Your task to perform on an android device: toggle sleep mode Image 0: 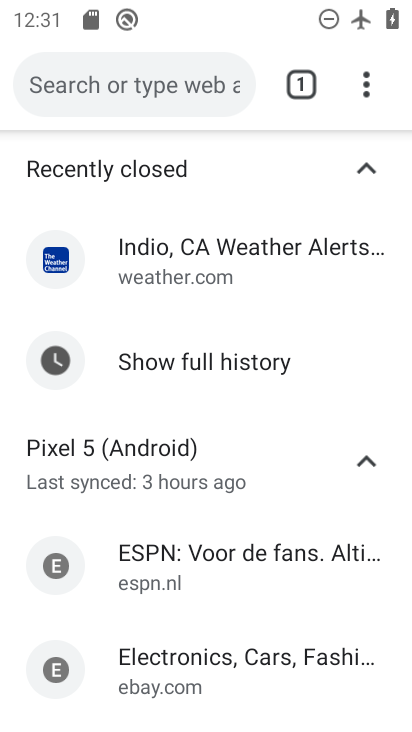
Step 0: press home button
Your task to perform on an android device: toggle sleep mode Image 1: 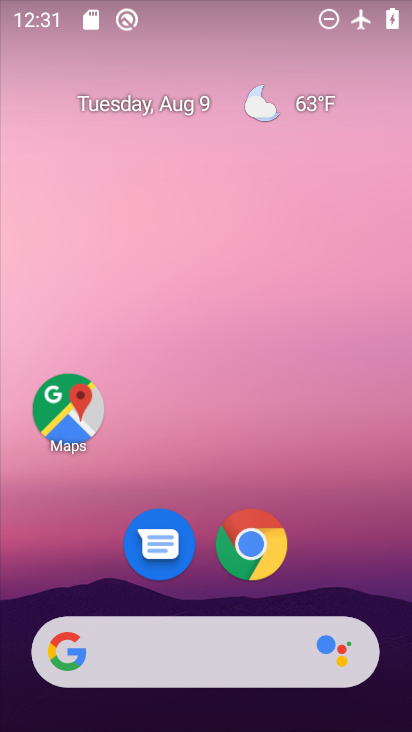
Step 1: drag from (199, 663) to (217, 152)
Your task to perform on an android device: toggle sleep mode Image 2: 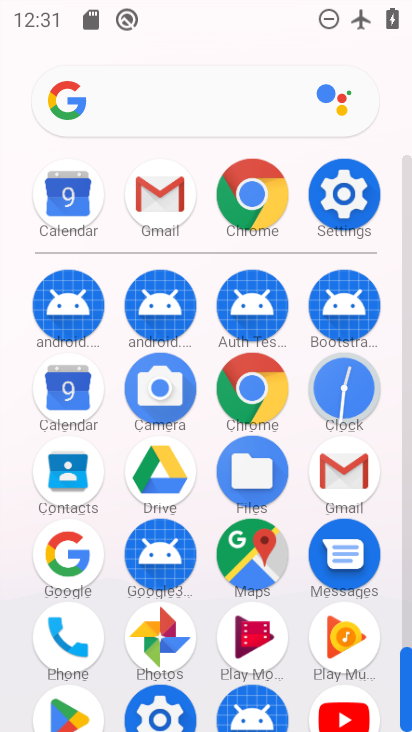
Step 2: click (343, 193)
Your task to perform on an android device: toggle sleep mode Image 3: 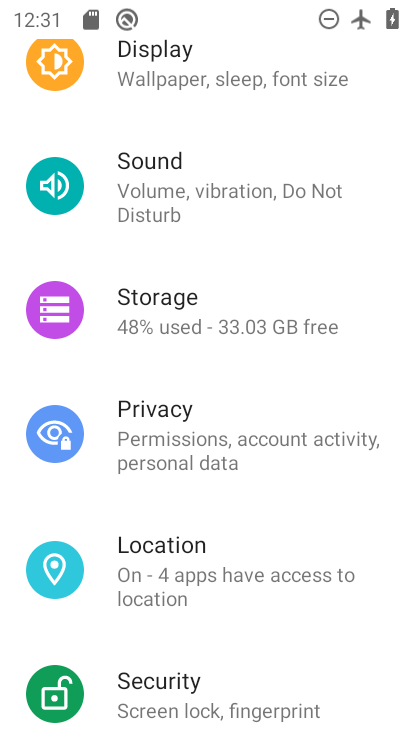
Step 3: click (221, 89)
Your task to perform on an android device: toggle sleep mode Image 4: 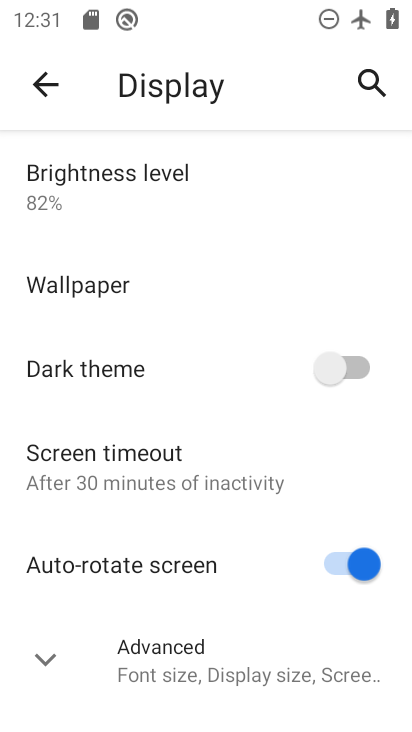
Step 4: drag from (142, 424) to (209, 296)
Your task to perform on an android device: toggle sleep mode Image 5: 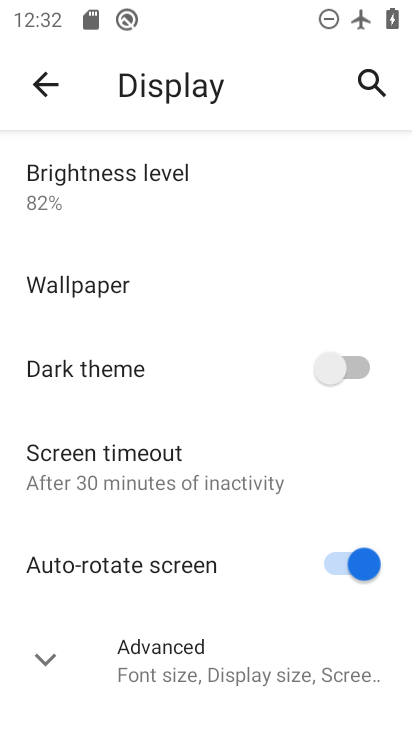
Step 5: click (128, 468)
Your task to perform on an android device: toggle sleep mode Image 6: 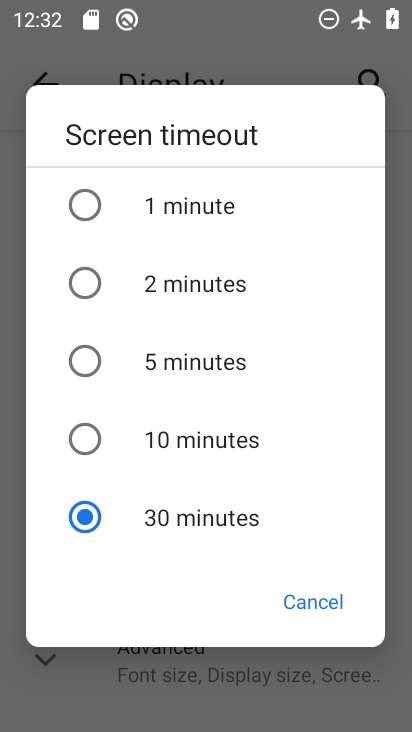
Step 6: click (321, 603)
Your task to perform on an android device: toggle sleep mode Image 7: 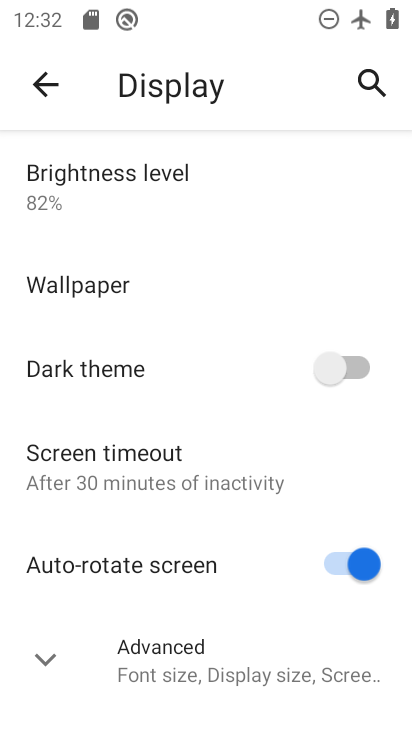
Step 7: task complete